Your task to perform on an android device: delete location history Image 0: 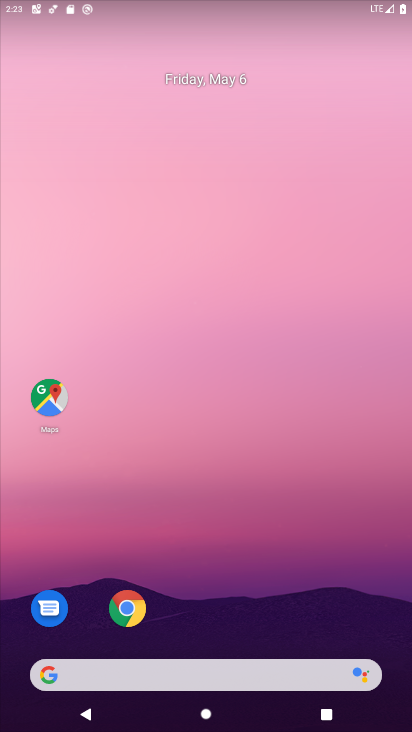
Step 0: click (48, 389)
Your task to perform on an android device: delete location history Image 1: 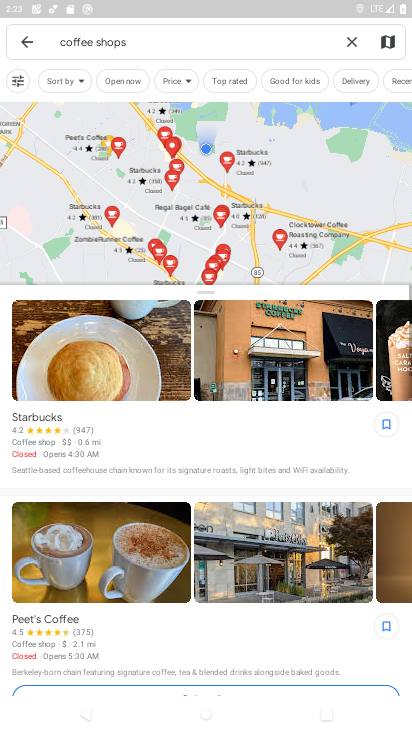
Step 1: click (29, 45)
Your task to perform on an android device: delete location history Image 2: 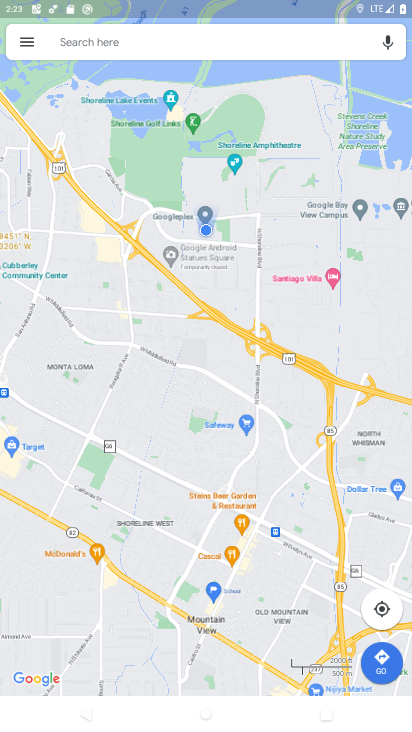
Step 2: click (29, 45)
Your task to perform on an android device: delete location history Image 3: 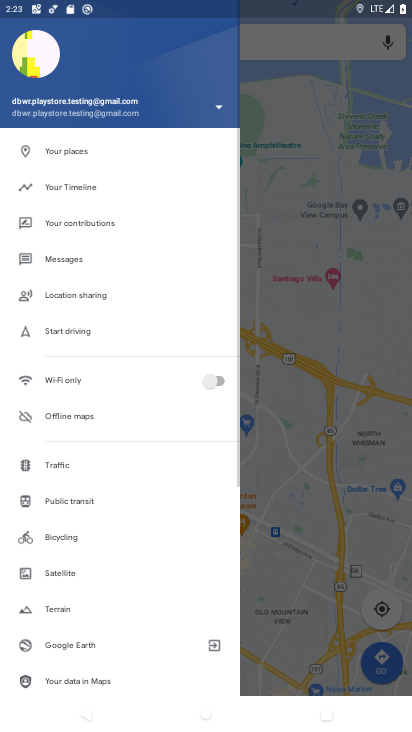
Step 3: click (66, 194)
Your task to perform on an android device: delete location history Image 4: 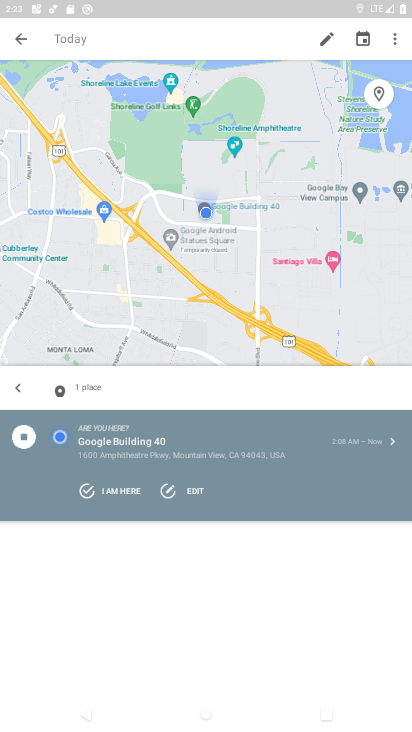
Step 4: click (396, 39)
Your task to perform on an android device: delete location history Image 5: 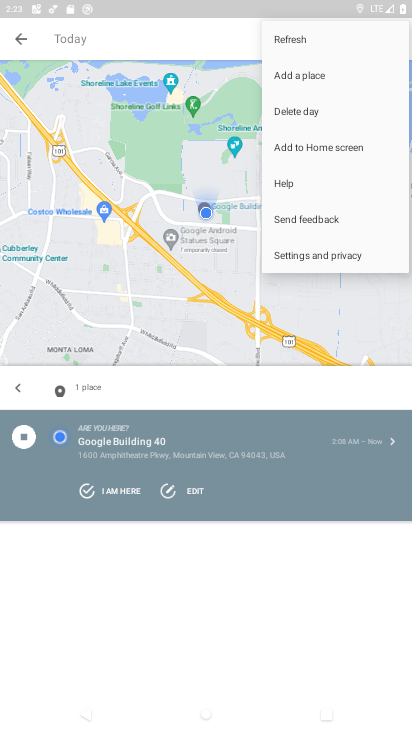
Step 5: click (315, 257)
Your task to perform on an android device: delete location history Image 6: 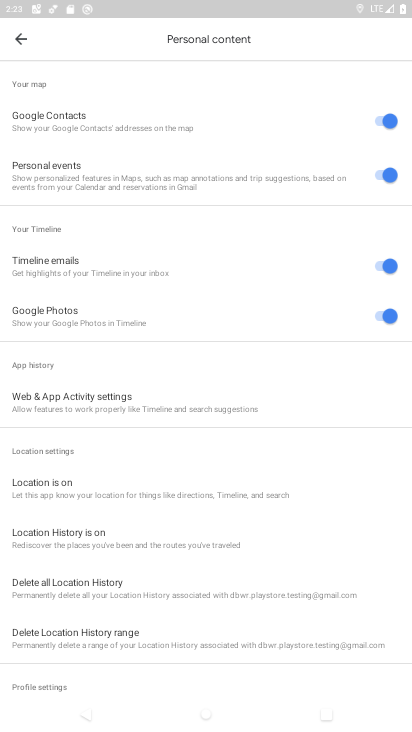
Step 6: click (116, 588)
Your task to perform on an android device: delete location history Image 7: 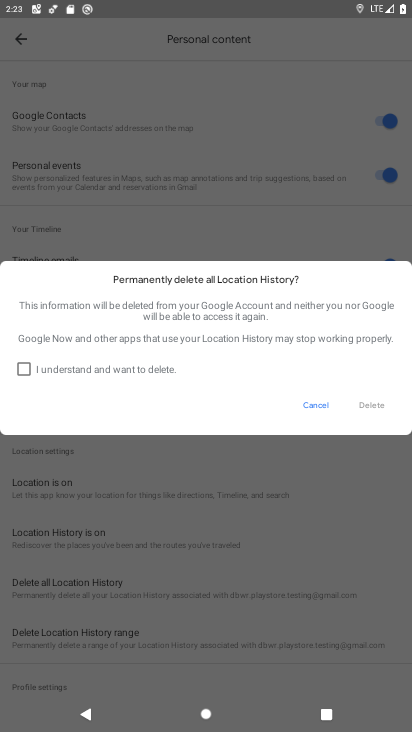
Step 7: click (72, 373)
Your task to perform on an android device: delete location history Image 8: 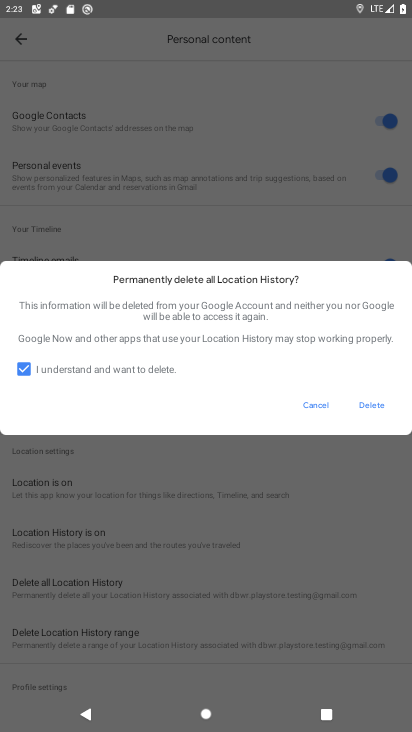
Step 8: click (376, 400)
Your task to perform on an android device: delete location history Image 9: 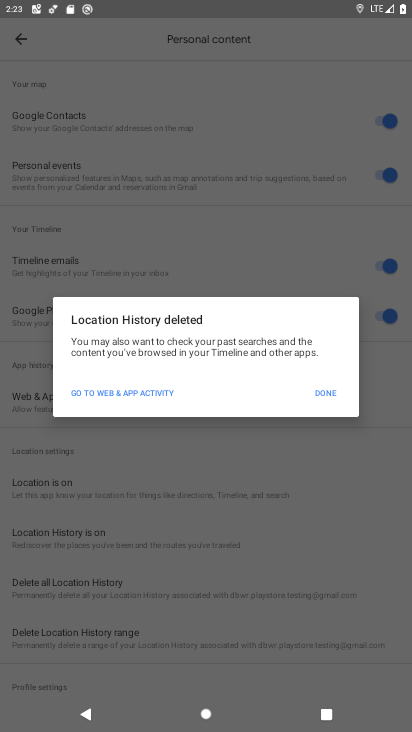
Step 9: click (331, 390)
Your task to perform on an android device: delete location history Image 10: 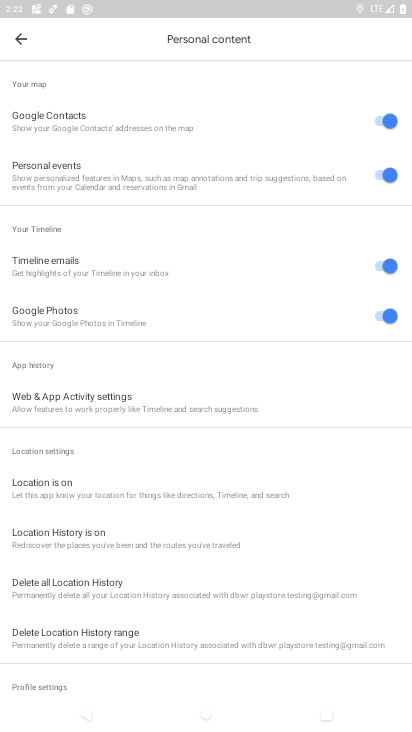
Step 10: task complete